Your task to perform on an android device: Open Youtube and go to the subscriptions tab Image 0: 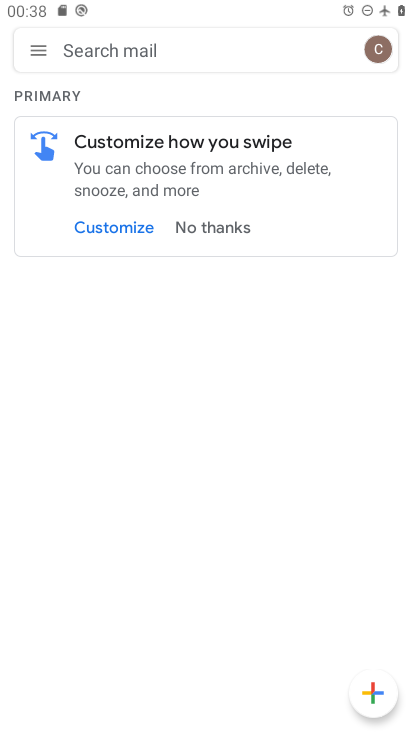
Step 0: press home button
Your task to perform on an android device: Open Youtube and go to the subscriptions tab Image 1: 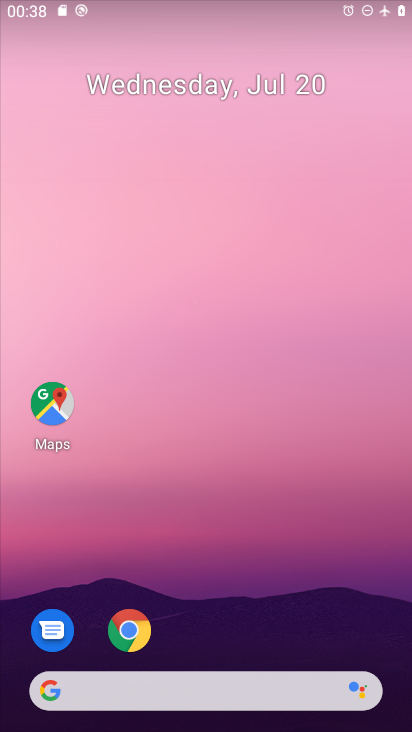
Step 1: drag from (213, 635) to (214, 109)
Your task to perform on an android device: Open Youtube and go to the subscriptions tab Image 2: 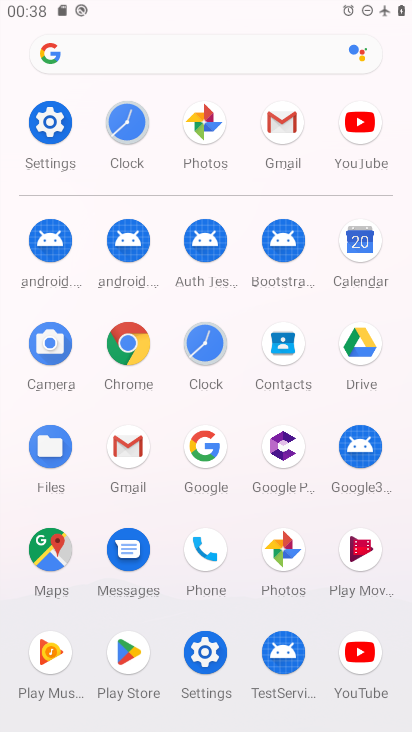
Step 2: click (354, 664)
Your task to perform on an android device: Open Youtube and go to the subscriptions tab Image 3: 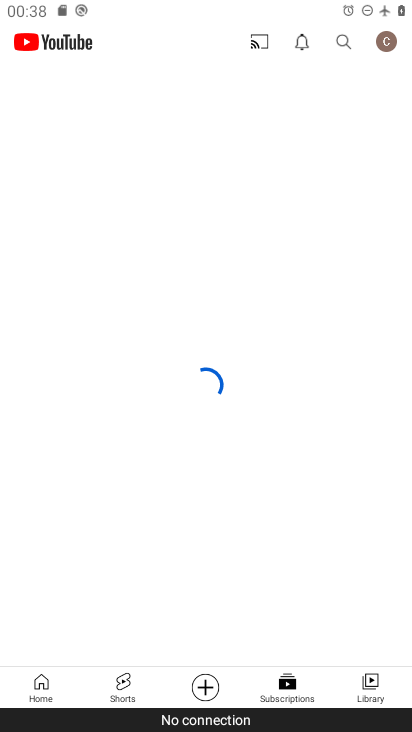
Step 3: task complete